Your task to perform on an android device: Open the Play Movies app and select the watchlist tab. Image 0: 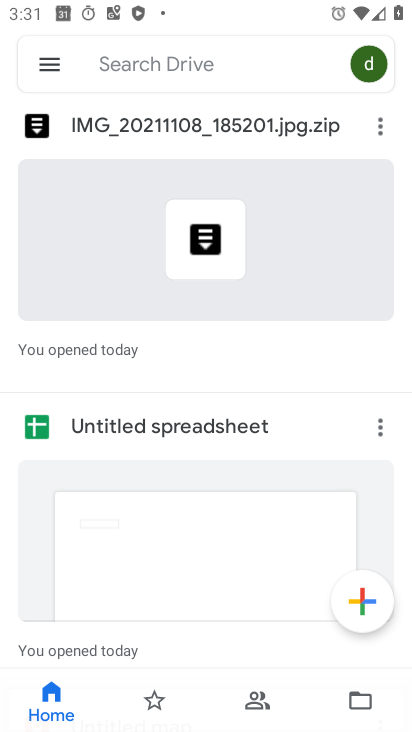
Step 0: press back button
Your task to perform on an android device: Open the Play Movies app and select the watchlist tab. Image 1: 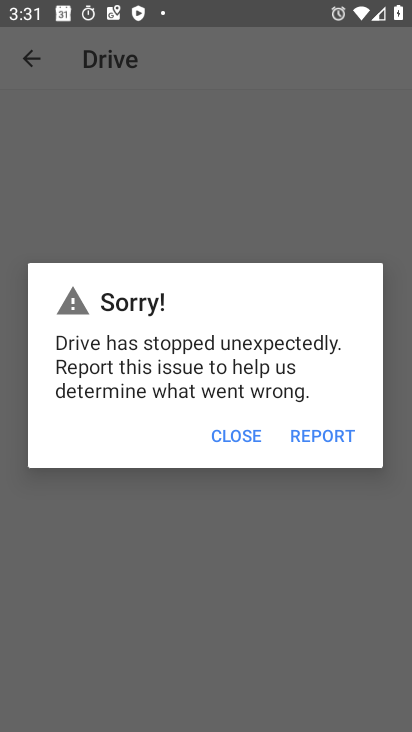
Step 1: press home button
Your task to perform on an android device: Open the Play Movies app and select the watchlist tab. Image 2: 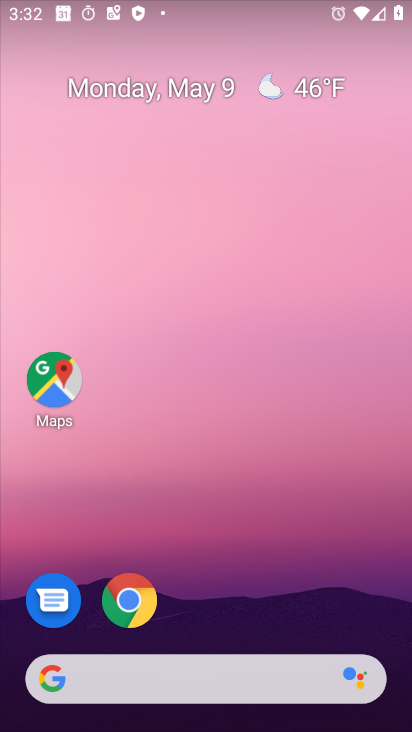
Step 2: drag from (205, 616) to (340, 37)
Your task to perform on an android device: Open the Play Movies app and select the watchlist tab. Image 3: 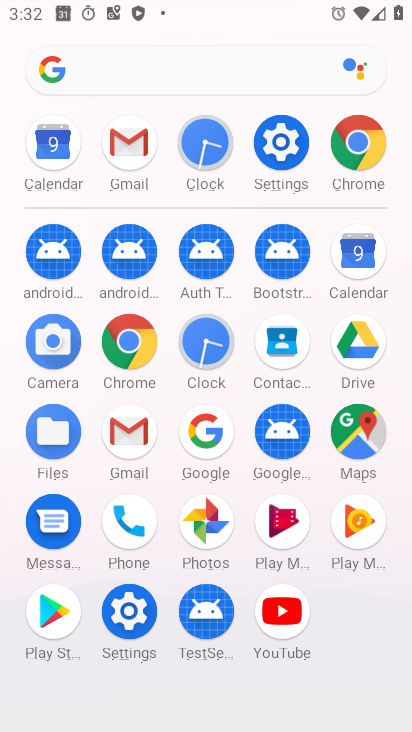
Step 3: click (280, 519)
Your task to perform on an android device: Open the Play Movies app and select the watchlist tab. Image 4: 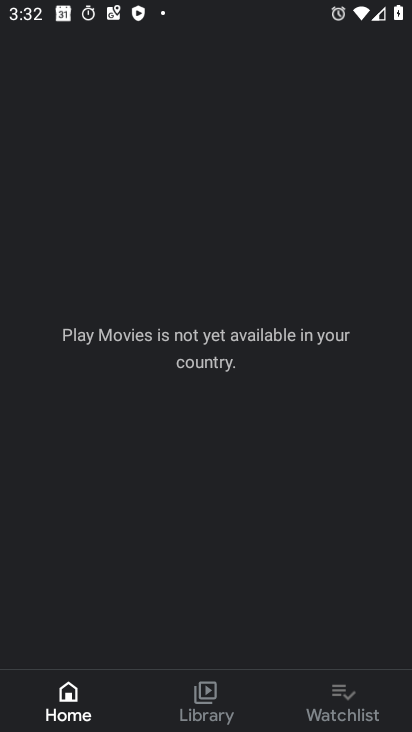
Step 4: click (354, 705)
Your task to perform on an android device: Open the Play Movies app and select the watchlist tab. Image 5: 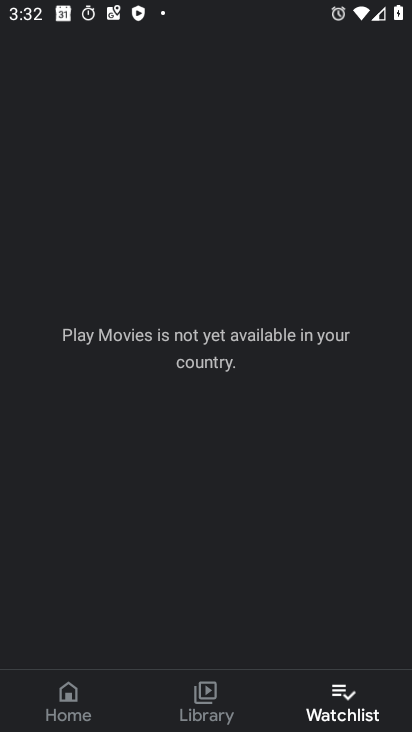
Step 5: task complete